Your task to perform on an android device: toggle airplane mode Image 0: 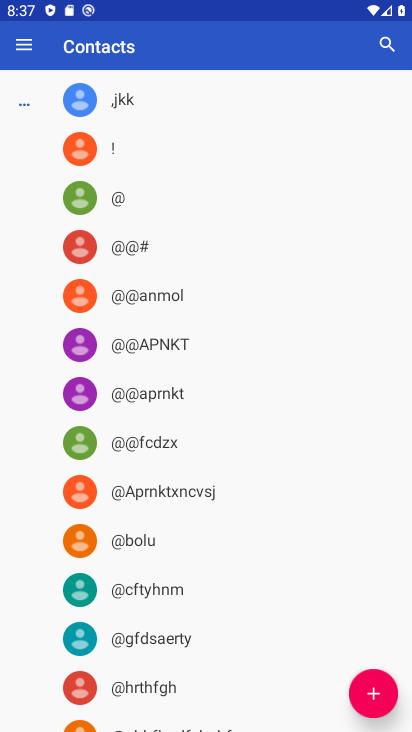
Step 0: press home button
Your task to perform on an android device: toggle airplane mode Image 1: 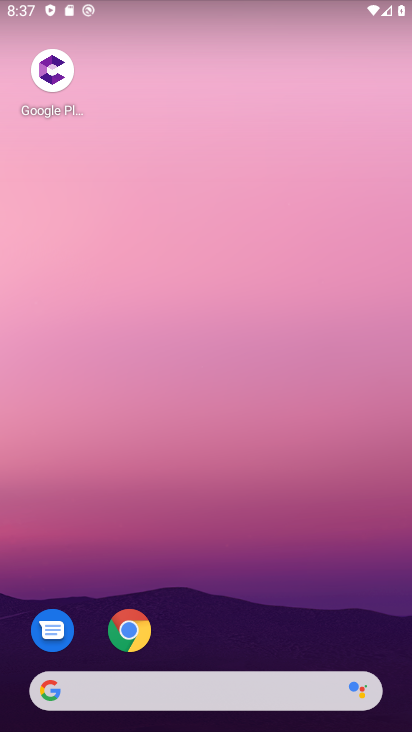
Step 1: drag from (183, 673) to (189, 217)
Your task to perform on an android device: toggle airplane mode Image 2: 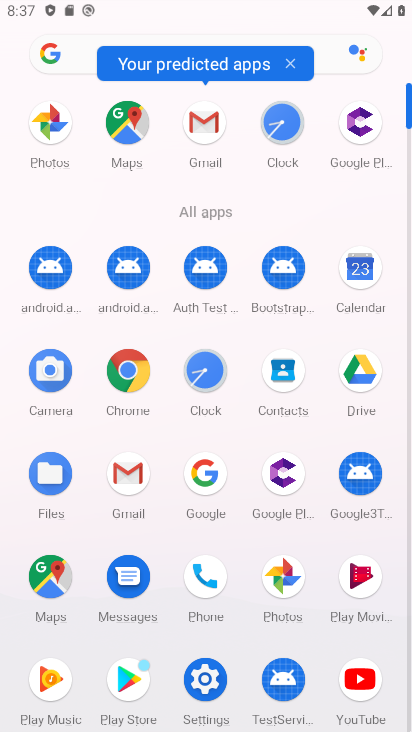
Step 2: click (221, 206)
Your task to perform on an android device: toggle airplane mode Image 3: 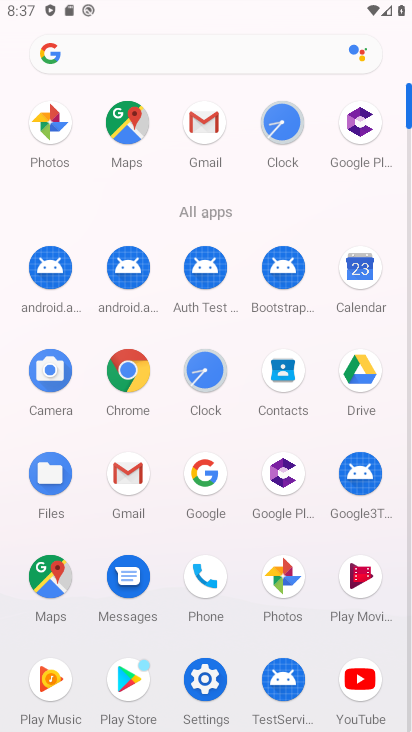
Step 3: click (208, 683)
Your task to perform on an android device: toggle airplane mode Image 4: 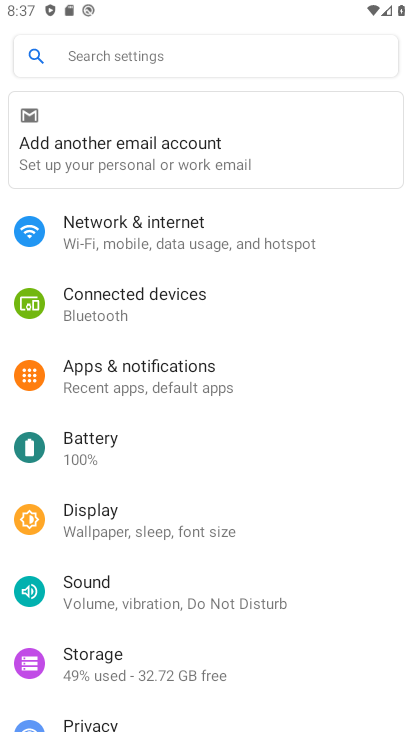
Step 4: click (220, 234)
Your task to perform on an android device: toggle airplane mode Image 5: 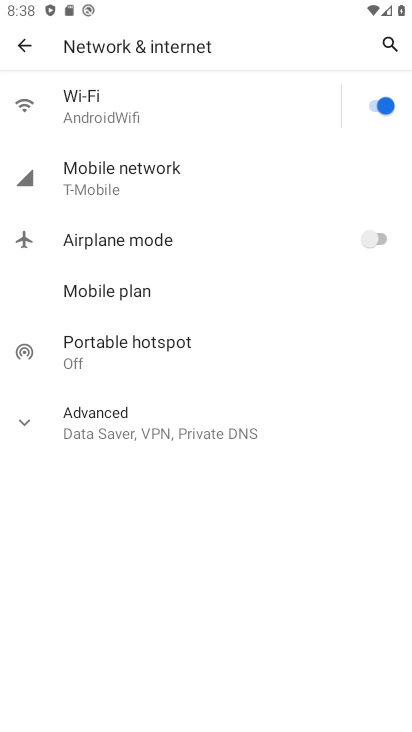
Step 5: click (375, 237)
Your task to perform on an android device: toggle airplane mode Image 6: 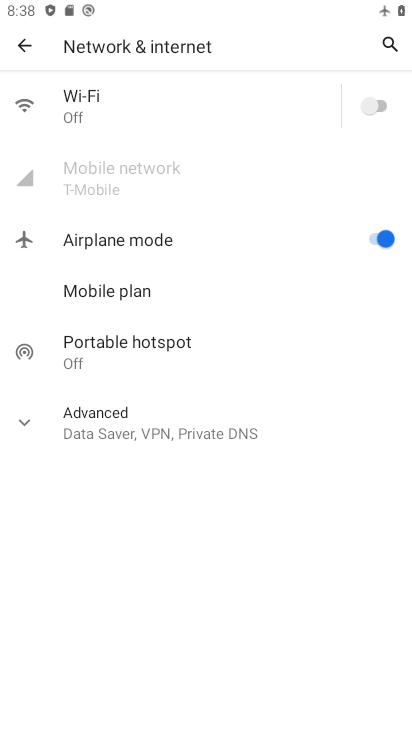
Step 6: task complete